Your task to perform on an android device: snooze an email in the gmail app Image 0: 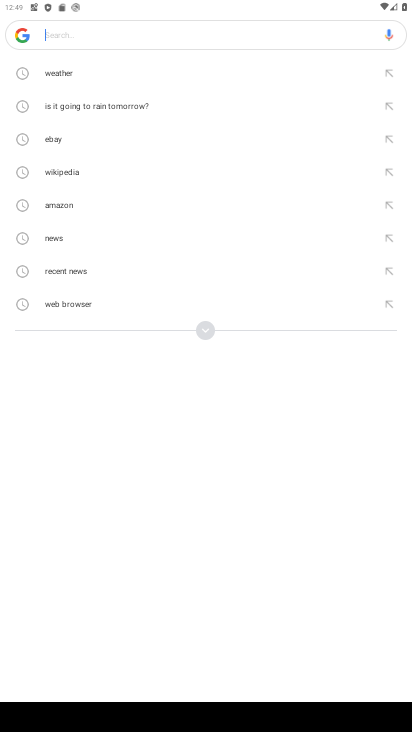
Step 0: press home button
Your task to perform on an android device: snooze an email in the gmail app Image 1: 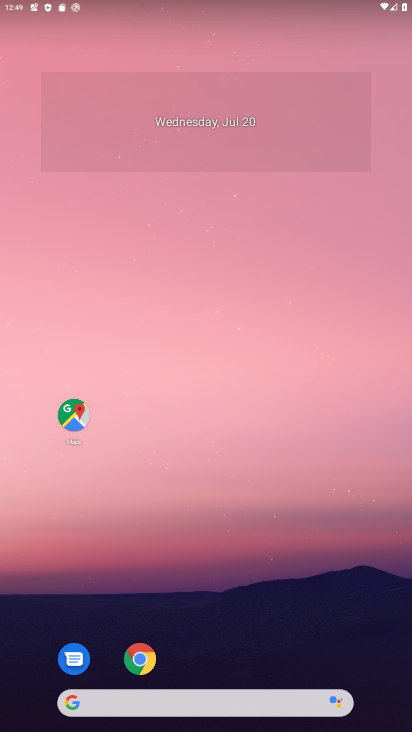
Step 1: drag from (227, 513) to (256, 213)
Your task to perform on an android device: snooze an email in the gmail app Image 2: 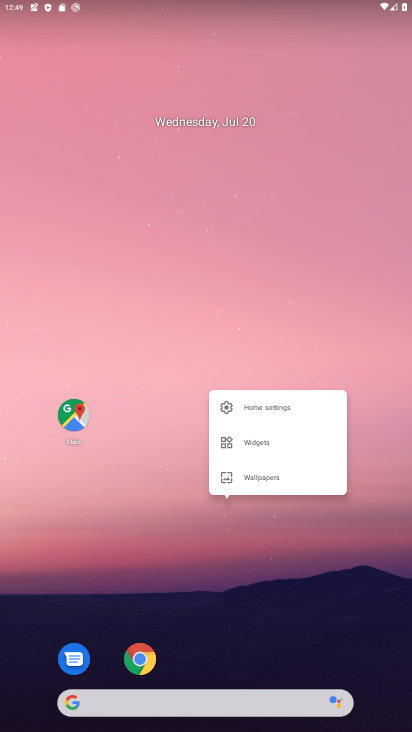
Step 2: click (206, 316)
Your task to perform on an android device: snooze an email in the gmail app Image 3: 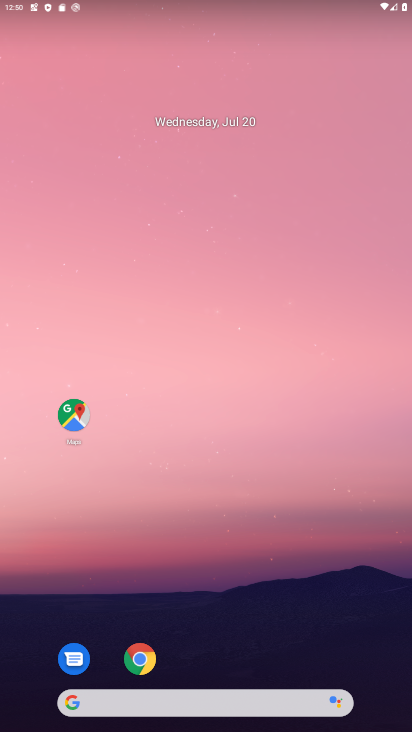
Step 3: drag from (197, 497) to (166, 170)
Your task to perform on an android device: snooze an email in the gmail app Image 4: 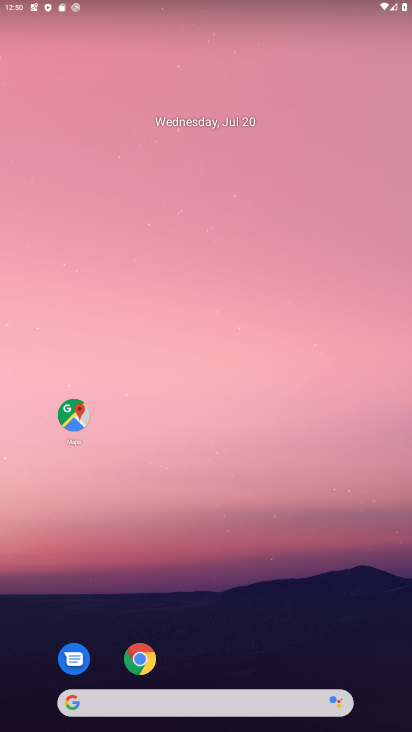
Step 4: drag from (209, 634) to (193, 131)
Your task to perform on an android device: snooze an email in the gmail app Image 5: 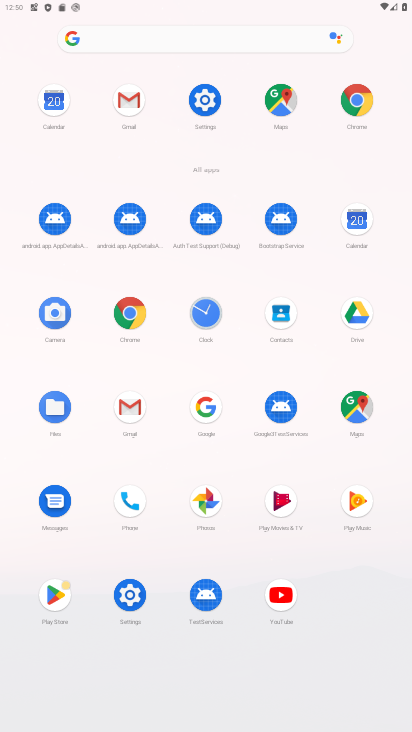
Step 5: click (131, 416)
Your task to perform on an android device: snooze an email in the gmail app Image 6: 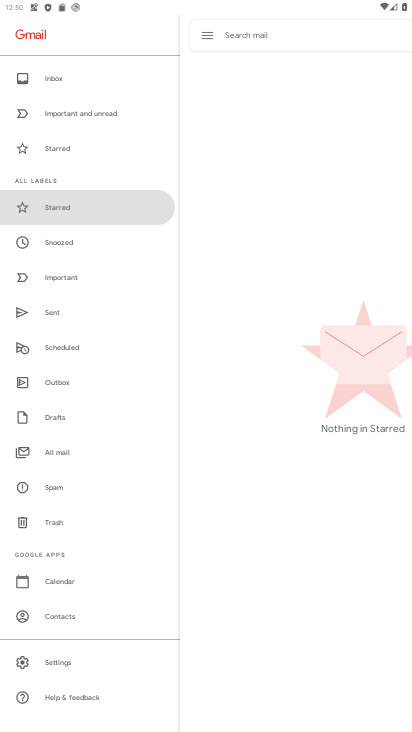
Step 6: click (60, 243)
Your task to perform on an android device: snooze an email in the gmail app Image 7: 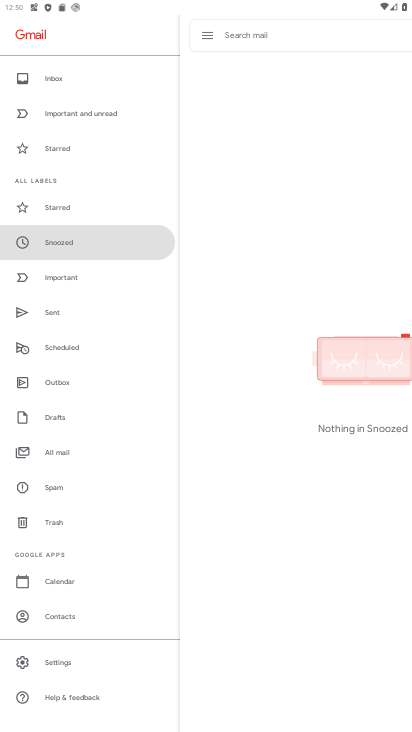
Step 7: task complete